Your task to perform on an android device: Go to accessibility settings Image 0: 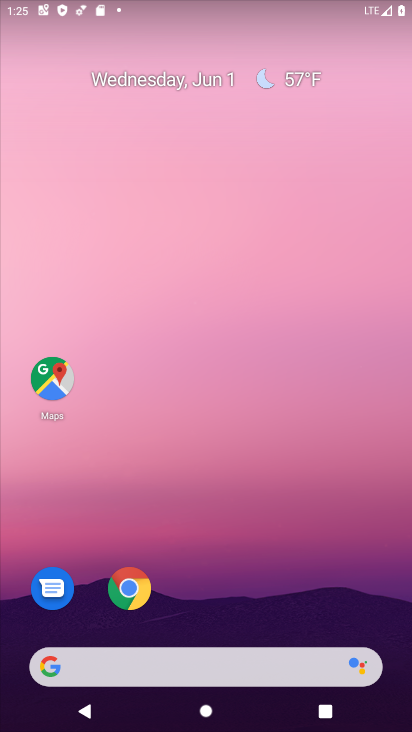
Step 0: click (141, 594)
Your task to perform on an android device: Go to accessibility settings Image 1: 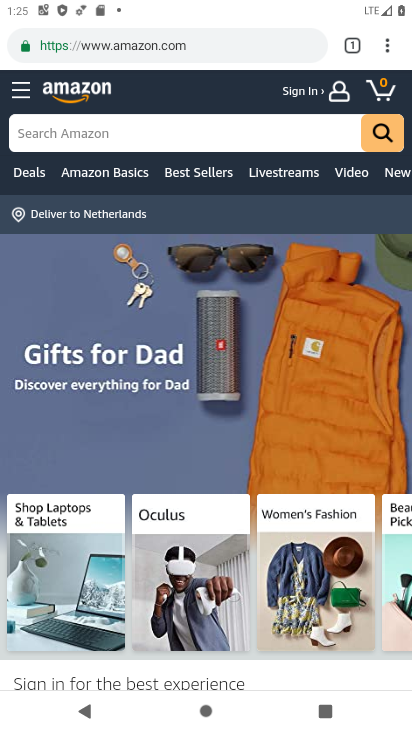
Step 1: press home button
Your task to perform on an android device: Go to accessibility settings Image 2: 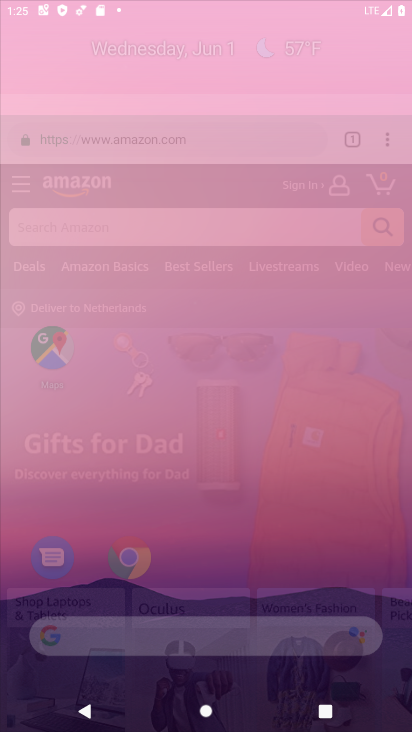
Step 2: press home button
Your task to perform on an android device: Go to accessibility settings Image 3: 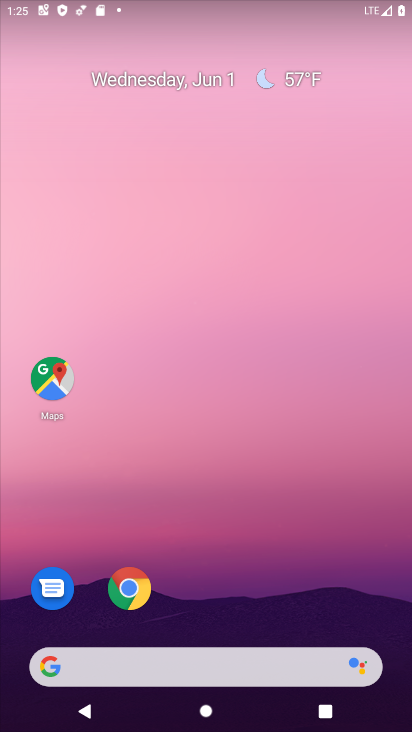
Step 3: drag from (259, 367) to (129, 39)
Your task to perform on an android device: Go to accessibility settings Image 4: 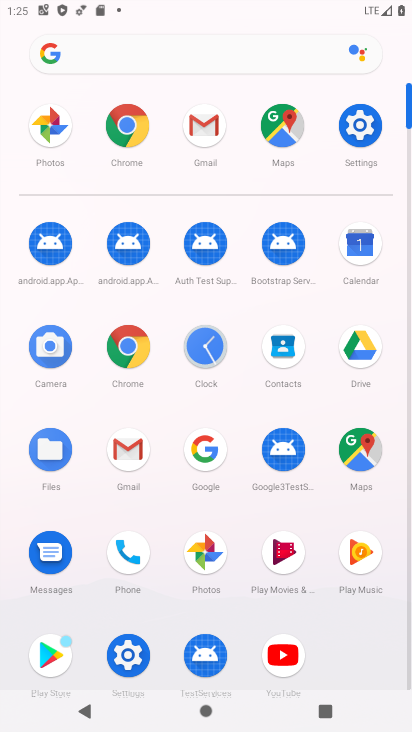
Step 4: click (368, 127)
Your task to perform on an android device: Go to accessibility settings Image 5: 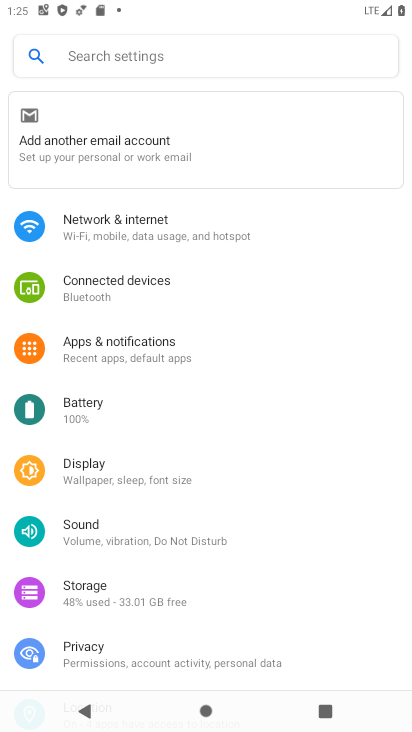
Step 5: drag from (158, 517) to (189, 152)
Your task to perform on an android device: Go to accessibility settings Image 6: 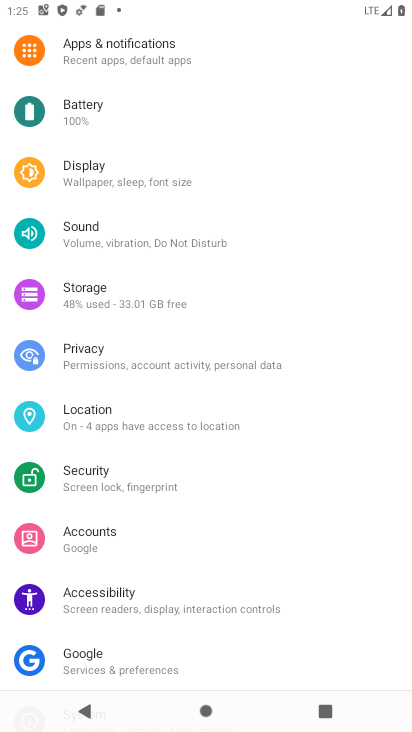
Step 6: click (131, 592)
Your task to perform on an android device: Go to accessibility settings Image 7: 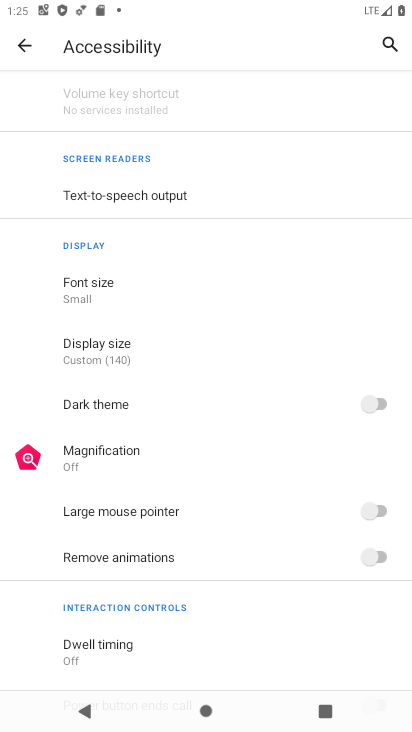
Step 7: task complete